Your task to perform on an android device: Open display settings Image 0: 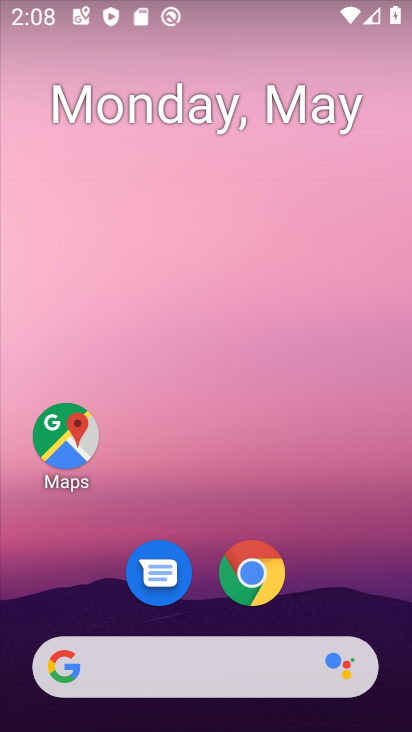
Step 0: drag from (146, 605) to (243, 136)
Your task to perform on an android device: Open display settings Image 1: 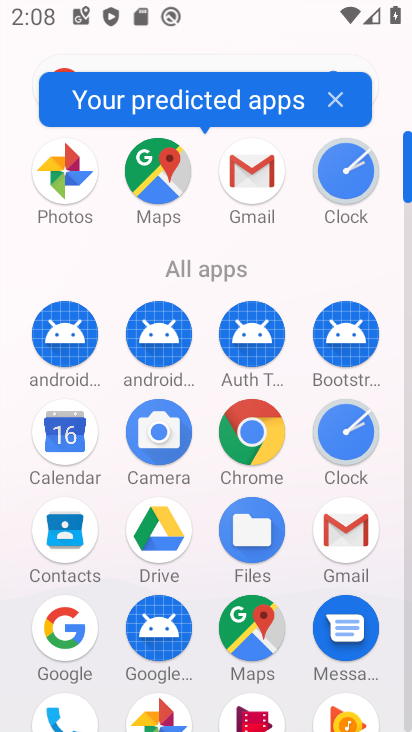
Step 1: drag from (151, 591) to (271, 274)
Your task to perform on an android device: Open display settings Image 2: 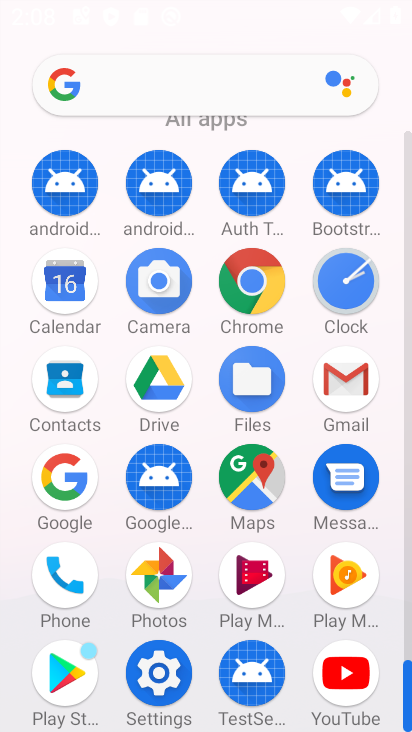
Step 2: click (175, 688)
Your task to perform on an android device: Open display settings Image 3: 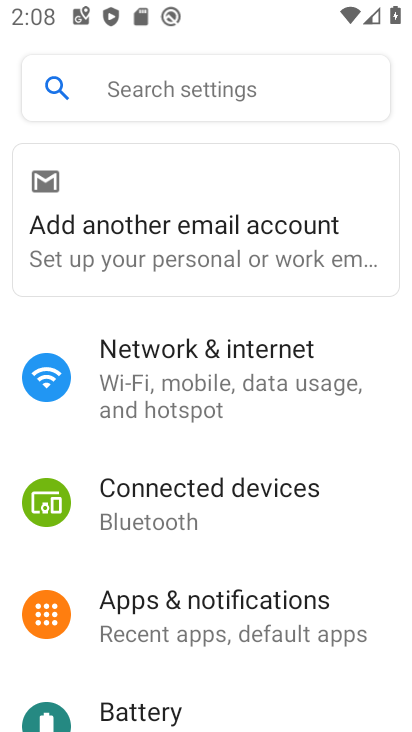
Step 3: drag from (191, 609) to (339, 346)
Your task to perform on an android device: Open display settings Image 4: 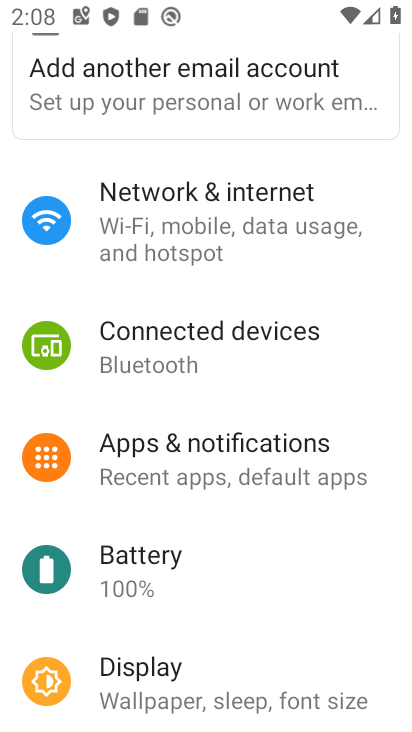
Step 4: click (194, 660)
Your task to perform on an android device: Open display settings Image 5: 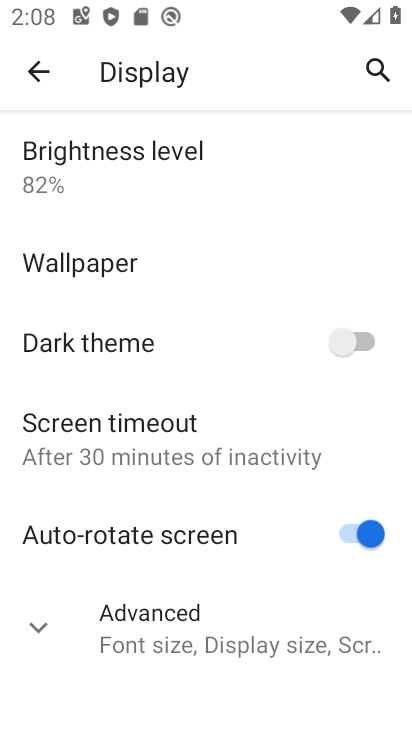
Step 5: task complete